Your task to perform on an android device: set the stopwatch Image 0: 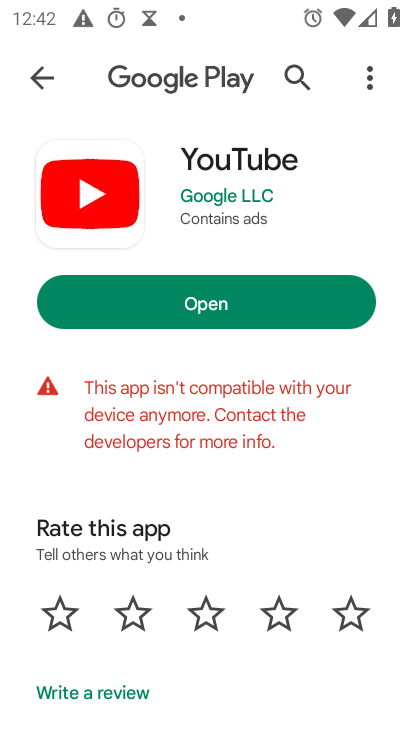
Step 0: press home button
Your task to perform on an android device: set the stopwatch Image 1: 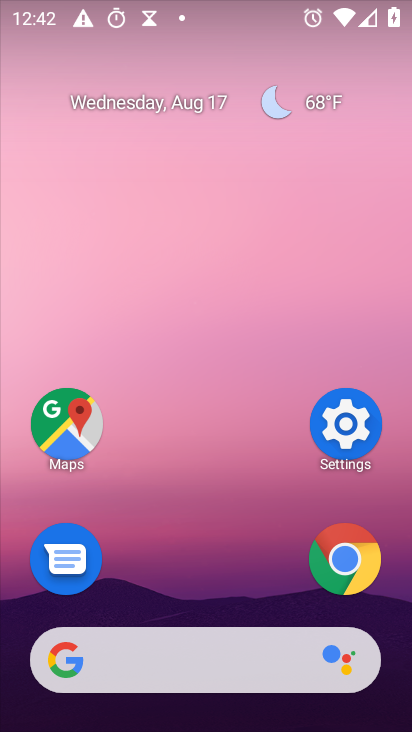
Step 1: drag from (192, 629) to (300, 185)
Your task to perform on an android device: set the stopwatch Image 2: 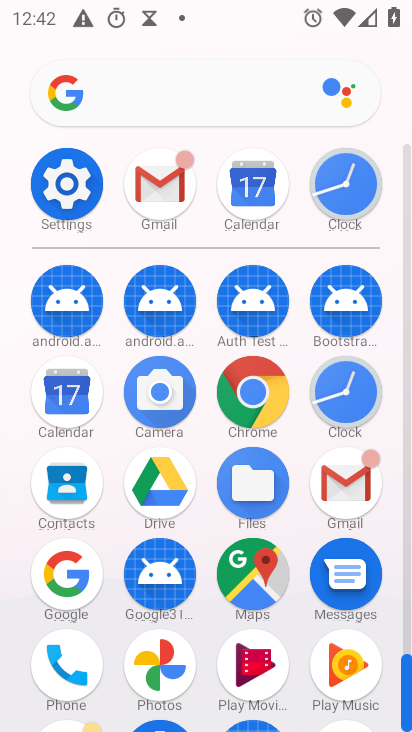
Step 2: click (343, 402)
Your task to perform on an android device: set the stopwatch Image 3: 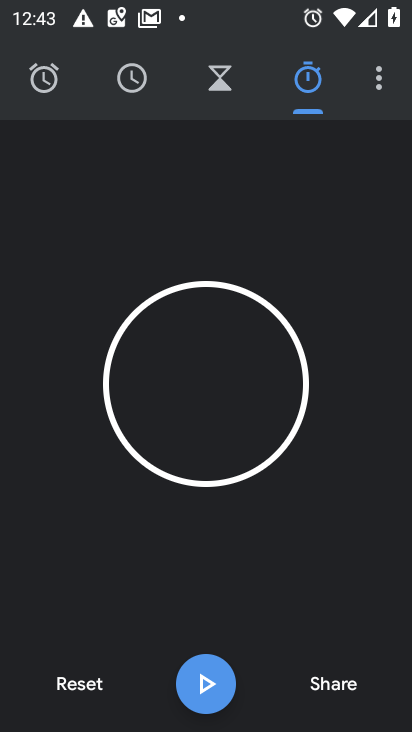
Step 3: click (74, 688)
Your task to perform on an android device: set the stopwatch Image 4: 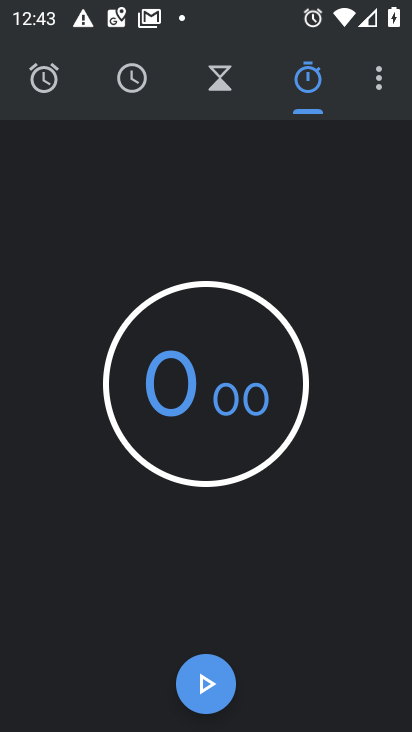
Step 4: click (214, 425)
Your task to perform on an android device: set the stopwatch Image 5: 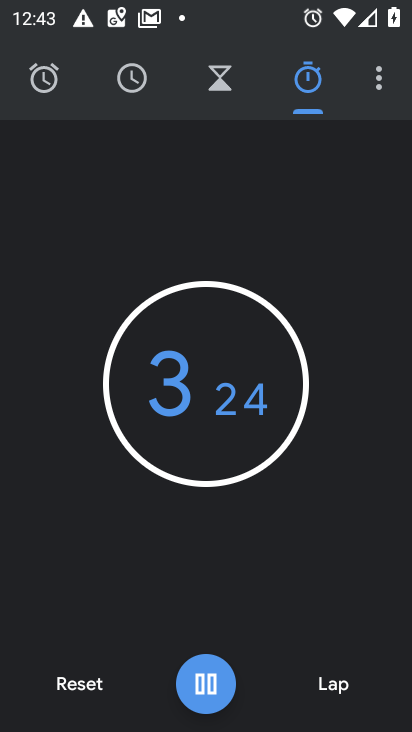
Step 5: click (227, 387)
Your task to perform on an android device: set the stopwatch Image 6: 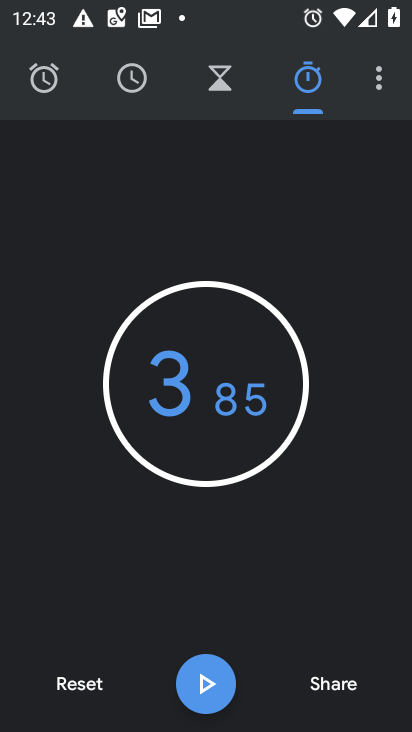
Step 6: task complete